Your task to perform on an android device: Open network settings Image 0: 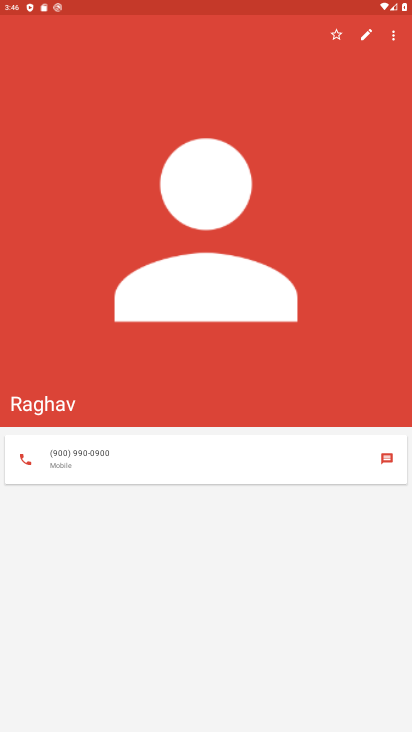
Step 0: press home button
Your task to perform on an android device: Open network settings Image 1: 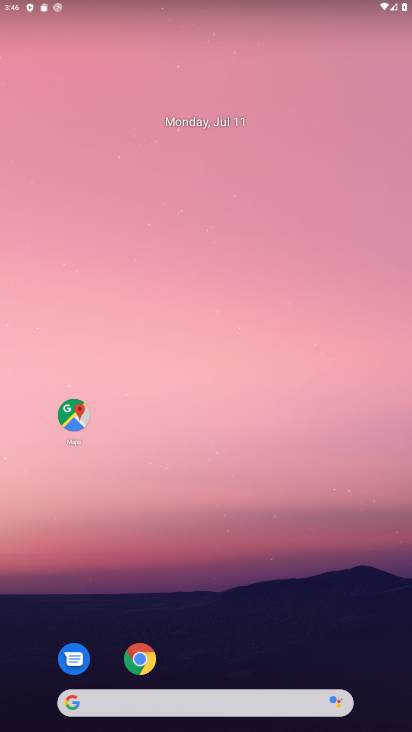
Step 1: drag from (195, 490) to (152, 117)
Your task to perform on an android device: Open network settings Image 2: 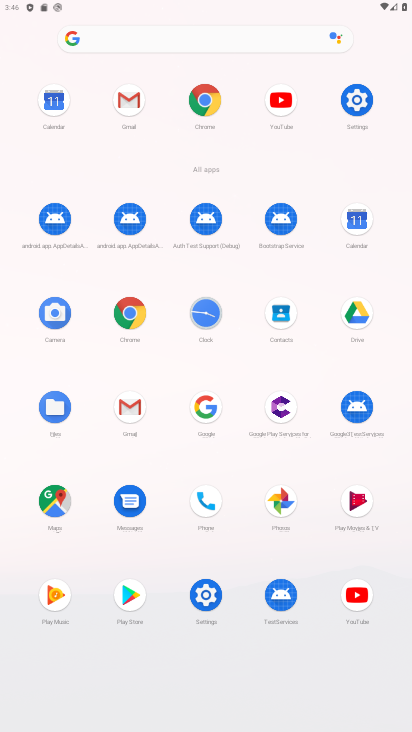
Step 2: click (352, 115)
Your task to perform on an android device: Open network settings Image 3: 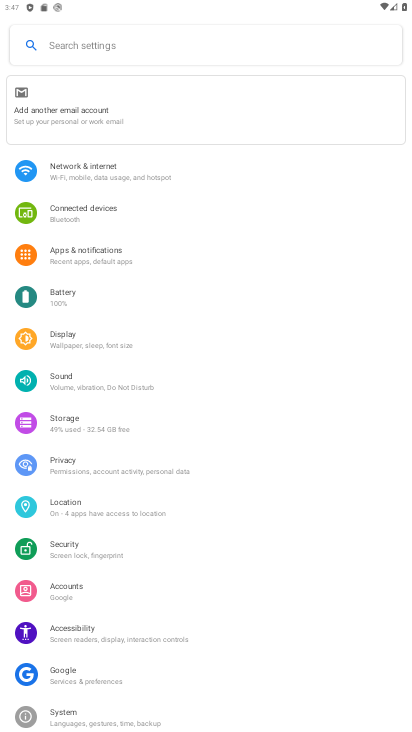
Step 3: click (79, 176)
Your task to perform on an android device: Open network settings Image 4: 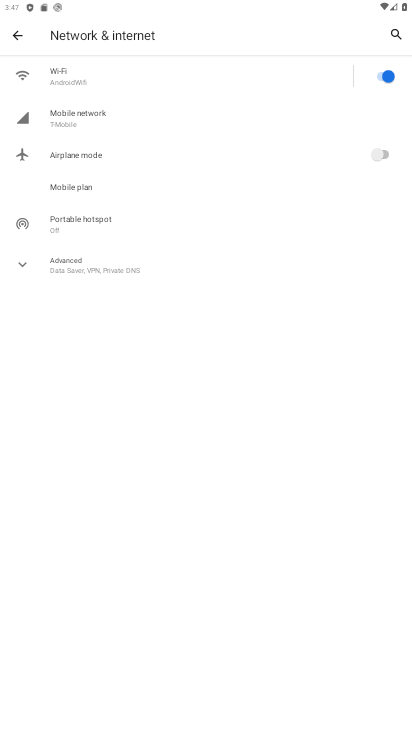
Step 4: task complete